Your task to perform on an android device: What is the recent news? Image 0: 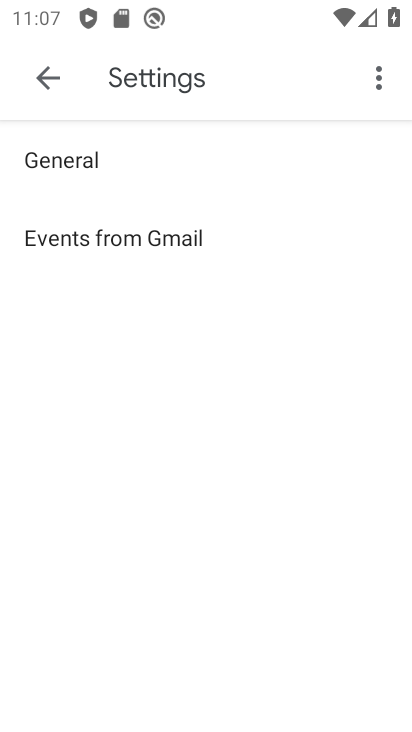
Step 0: press home button
Your task to perform on an android device: What is the recent news? Image 1: 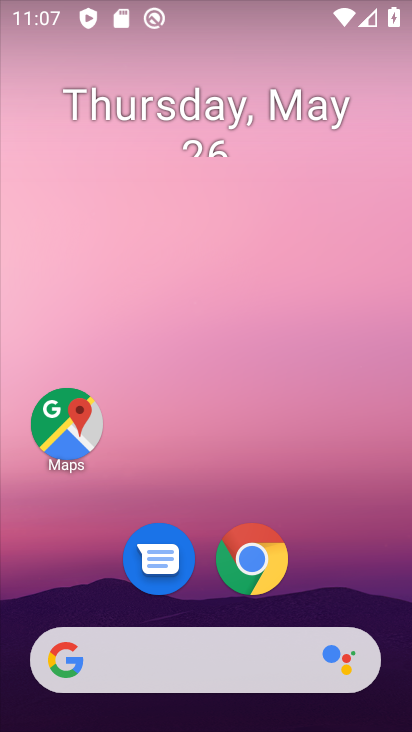
Step 1: click (68, 432)
Your task to perform on an android device: What is the recent news? Image 2: 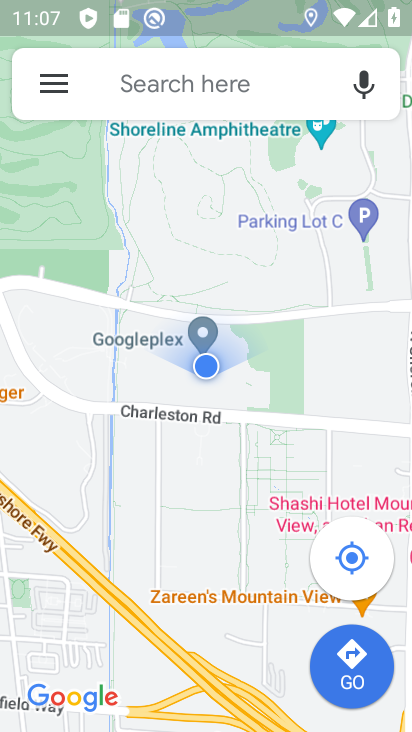
Step 2: press home button
Your task to perform on an android device: What is the recent news? Image 3: 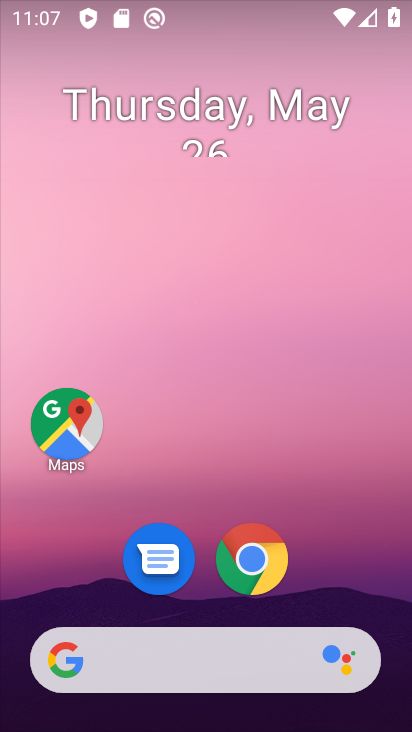
Step 3: click (250, 679)
Your task to perform on an android device: What is the recent news? Image 4: 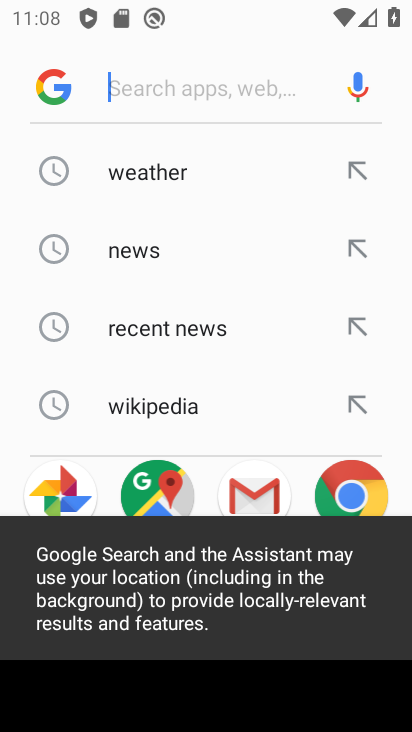
Step 4: click (174, 340)
Your task to perform on an android device: What is the recent news? Image 5: 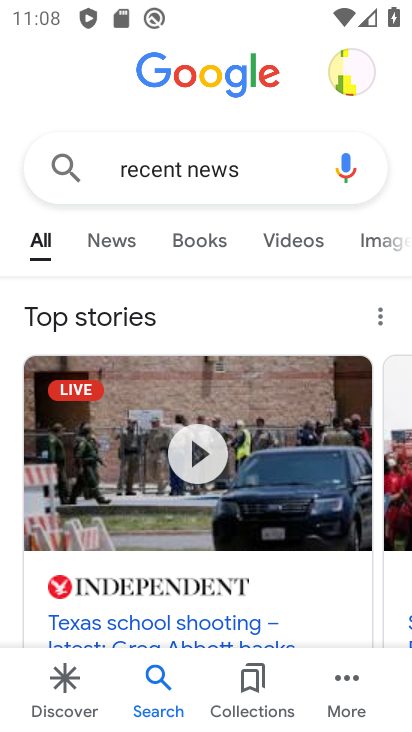
Step 5: task complete